Your task to perform on an android device: refresh tabs in the chrome app Image 0: 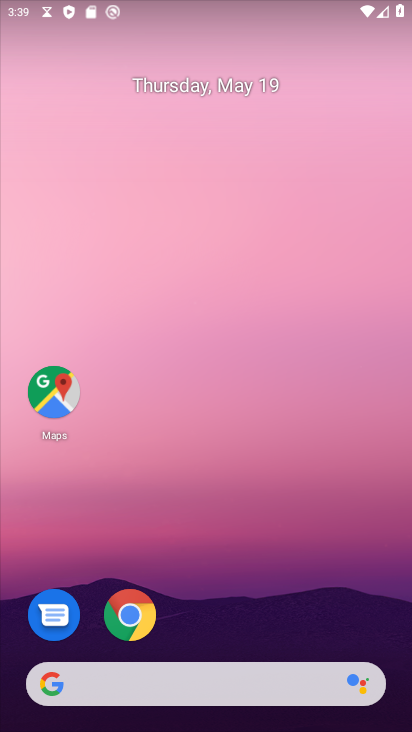
Step 0: drag from (337, 678) to (149, 36)
Your task to perform on an android device: refresh tabs in the chrome app Image 1: 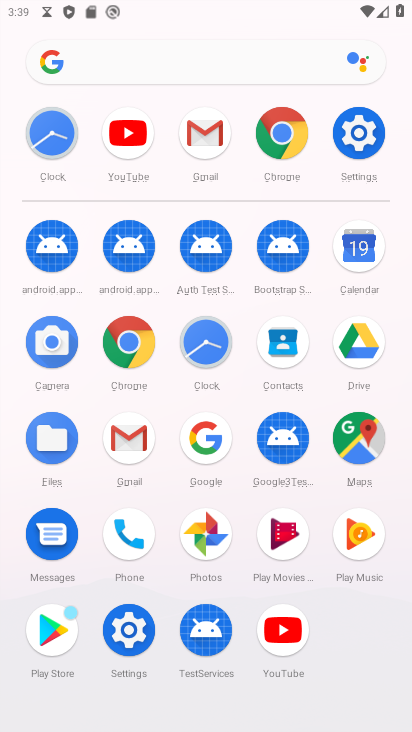
Step 1: click (280, 108)
Your task to perform on an android device: refresh tabs in the chrome app Image 2: 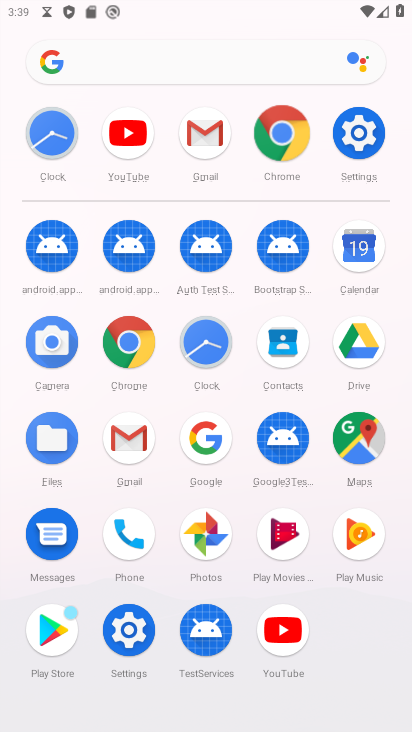
Step 2: click (278, 128)
Your task to perform on an android device: refresh tabs in the chrome app Image 3: 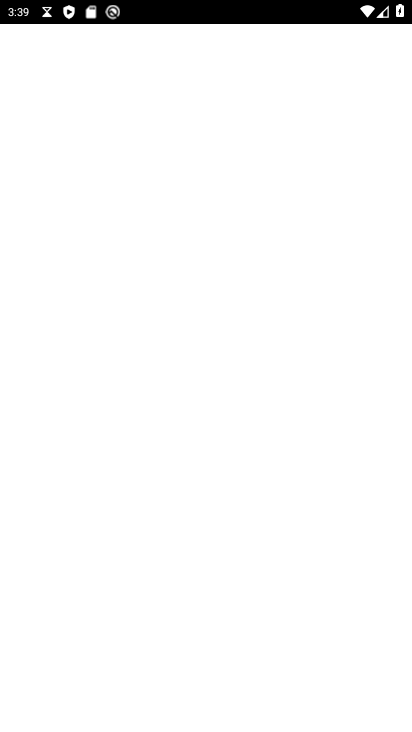
Step 3: click (278, 129)
Your task to perform on an android device: refresh tabs in the chrome app Image 4: 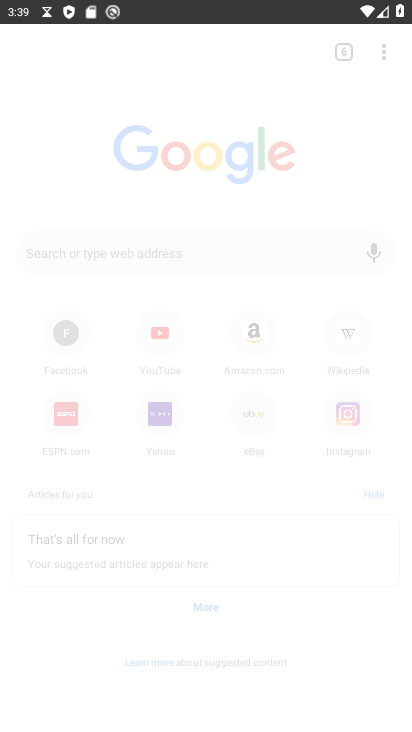
Step 4: click (279, 130)
Your task to perform on an android device: refresh tabs in the chrome app Image 5: 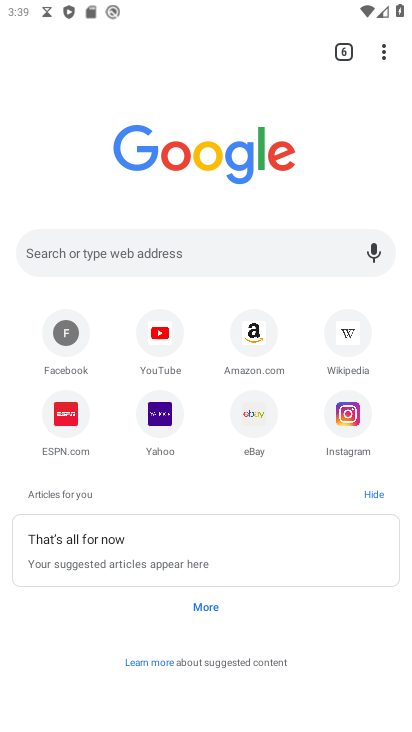
Step 5: click (383, 50)
Your task to perform on an android device: refresh tabs in the chrome app Image 6: 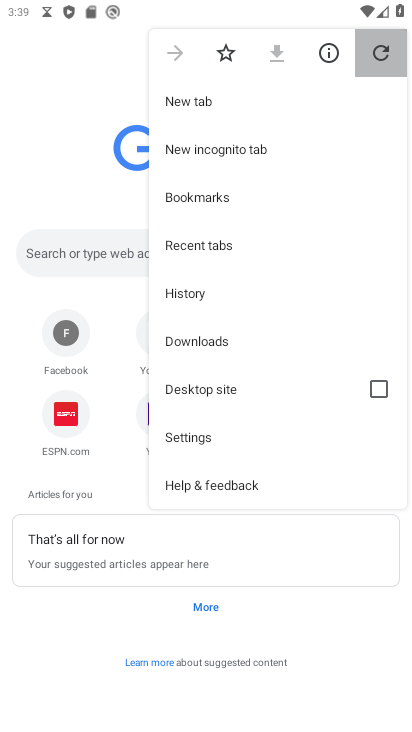
Step 6: click (380, 59)
Your task to perform on an android device: refresh tabs in the chrome app Image 7: 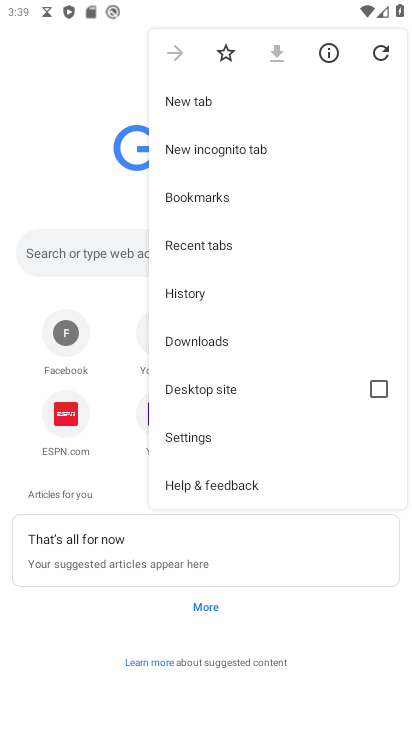
Step 7: click (380, 59)
Your task to perform on an android device: refresh tabs in the chrome app Image 8: 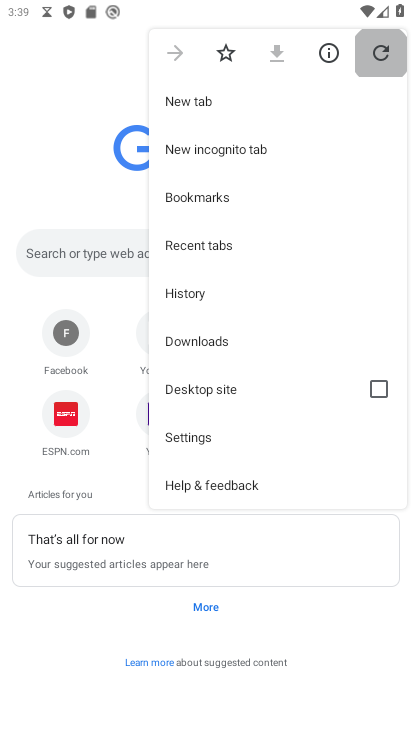
Step 8: click (380, 59)
Your task to perform on an android device: refresh tabs in the chrome app Image 9: 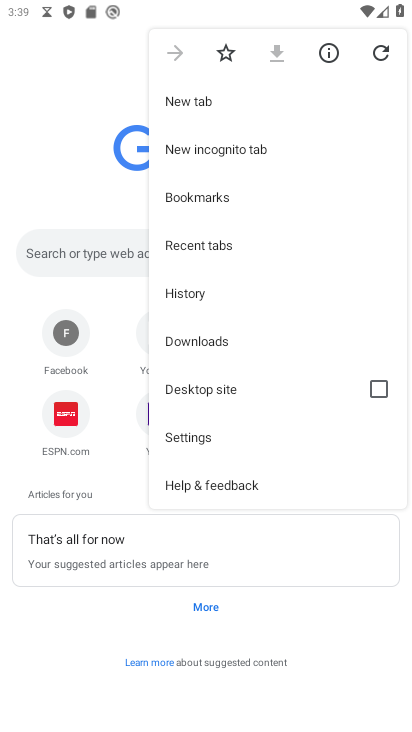
Step 9: task complete